Your task to perform on an android device: see tabs open on other devices in the chrome app Image 0: 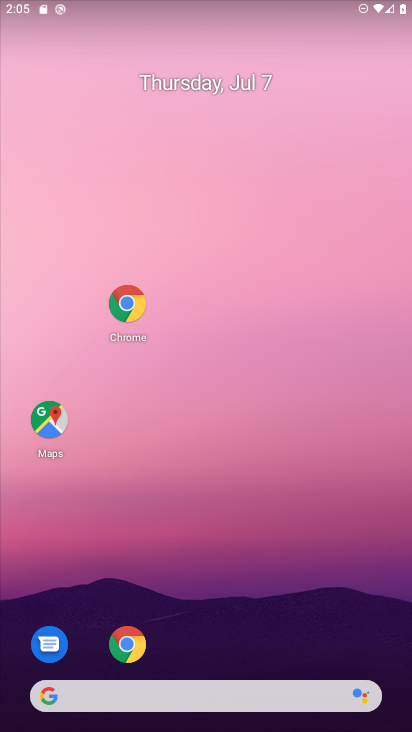
Step 0: drag from (252, 512) to (273, 60)
Your task to perform on an android device: see tabs open on other devices in the chrome app Image 1: 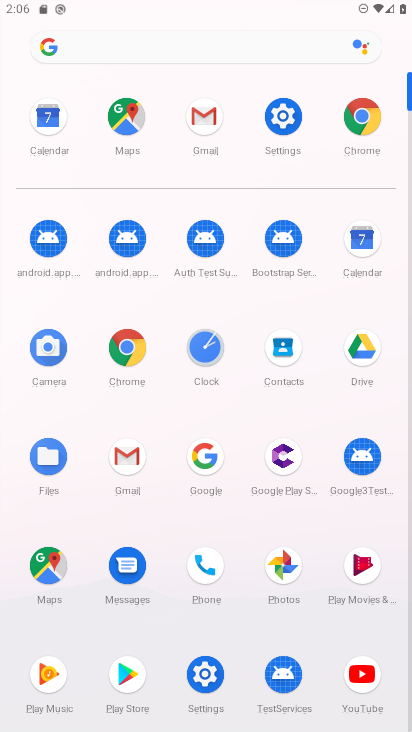
Step 1: click (141, 355)
Your task to perform on an android device: see tabs open on other devices in the chrome app Image 2: 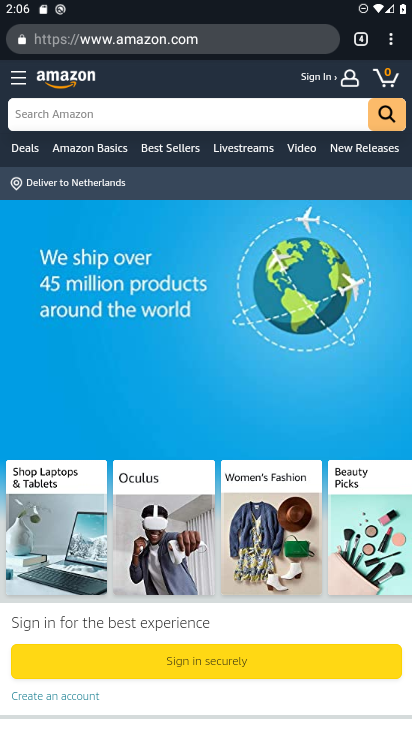
Step 2: click (404, 42)
Your task to perform on an android device: see tabs open on other devices in the chrome app Image 3: 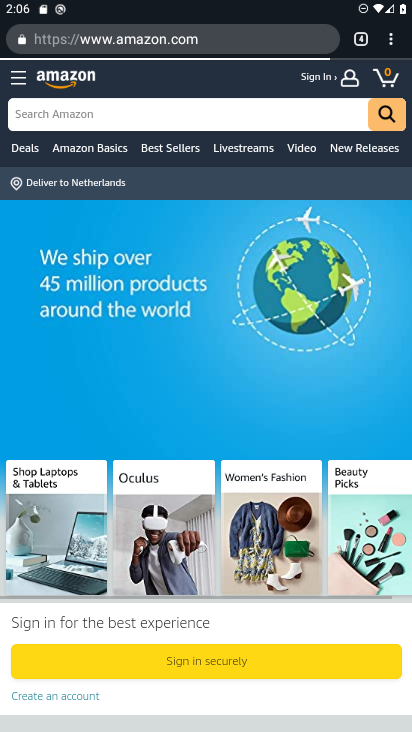
Step 3: click (391, 48)
Your task to perform on an android device: see tabs open on other devices in the chrome app Image 4: 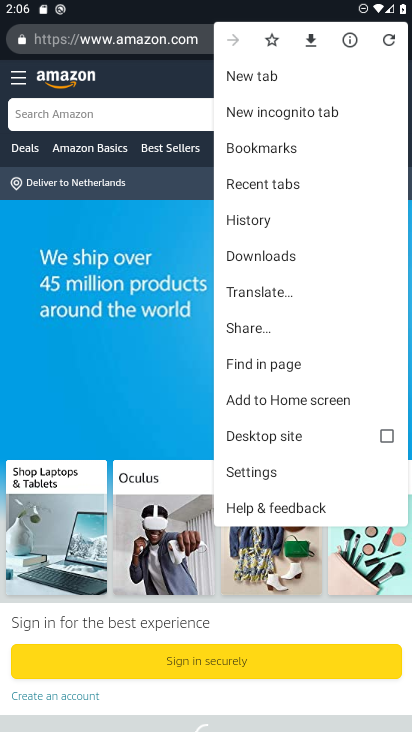
Step 4: click (286, 185)
Your task to perform on an android device: see tabs open on other devices in the chrome app Image 5: 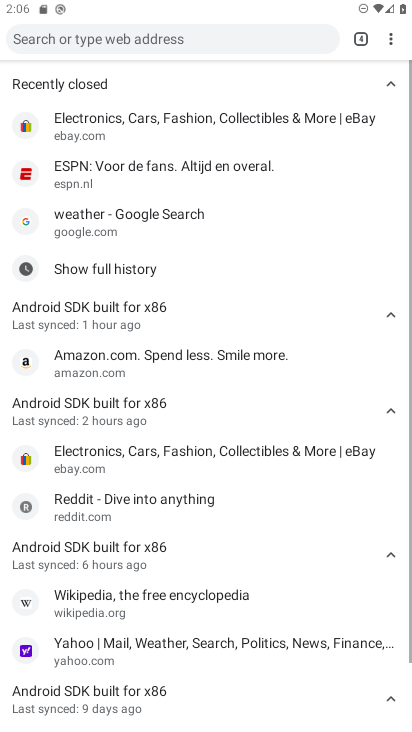
Step 5: click (394, 38)
Your task to perform on an android device: see tabs open on other devices in the chrome app Image 6: 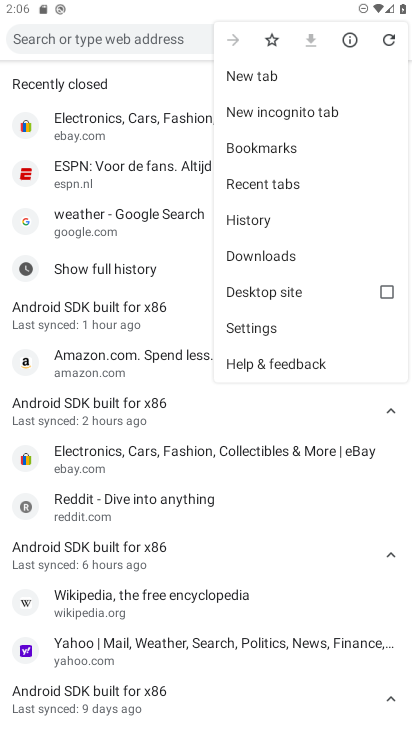
Step 6: task complete